Your task to perform on an android device: See recent photos Image 0: 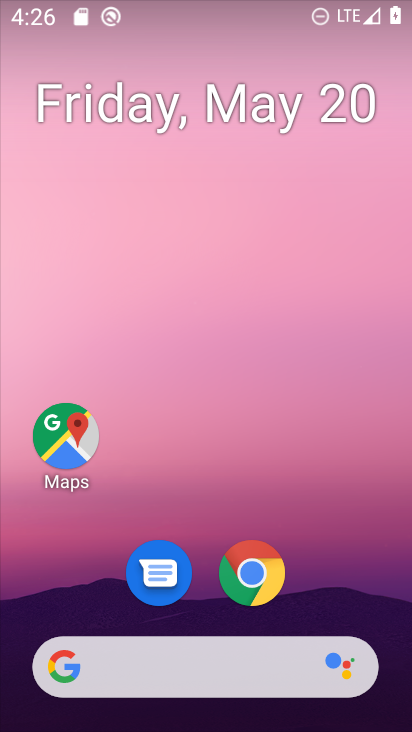
Step 0: drag from (394, 592) to (251, 195)
Your task to perform on an android device: See recent photos Image 1: 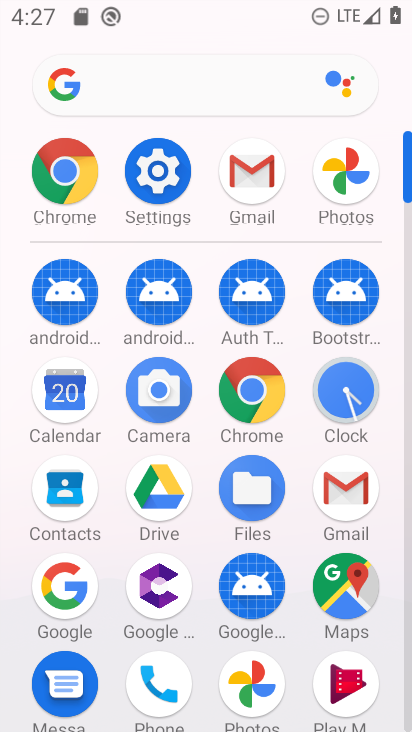
Step 1: click (338, 175)
Your task to perform on an android device: See recent photos Image 2: 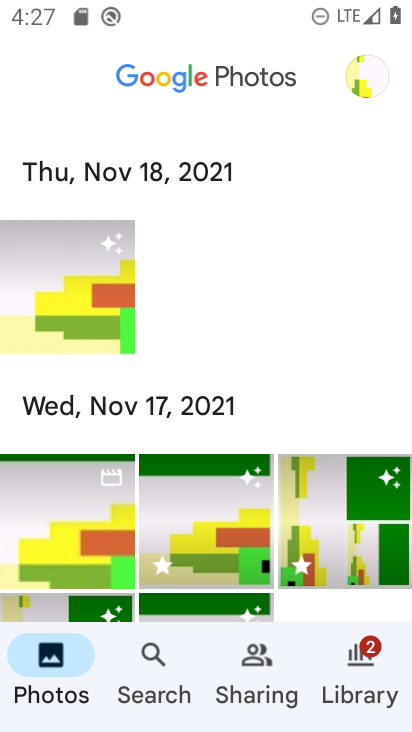
Step 2: task complete